Your task to perform on an android device: open the mobile data screen to see how much data has been used Image 0: 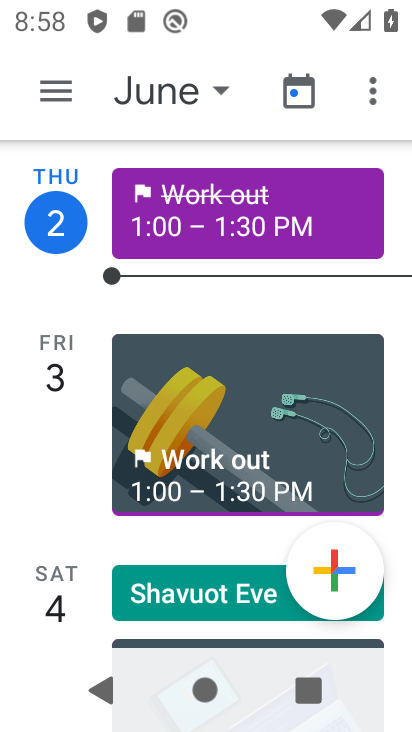
Step 0: press home button
Your task to perform on an android device: open the mobile data screen to see how much data has been used Image 1: 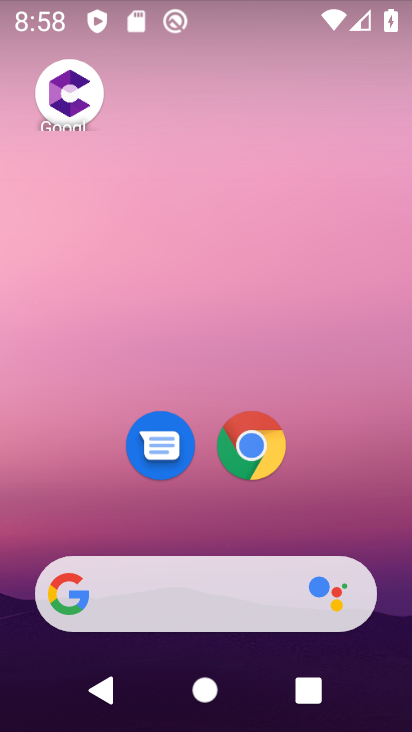
Step 1: drag from (376, 546) to (278, 254)
Your task to perform on an android device: open the mobile data screen to see how much data has been used Image 2: 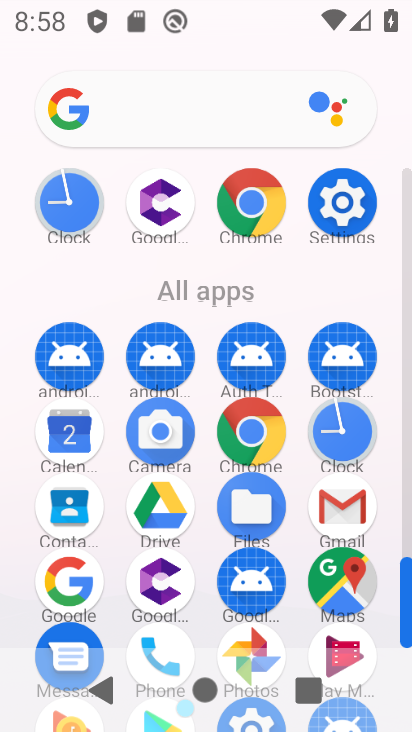
Step 2: click (349, 216)
Your task to perform on an android device: open the mobile data screen to see how much data has been used Image 3: 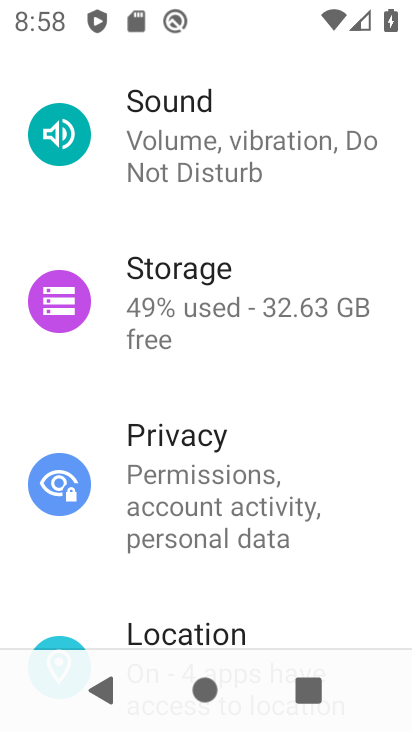
Step 3: drag from (260, 99) to (257, 432)
Your task to perform on an android device: open the mobile data screen to see how much data has been used Image 4: 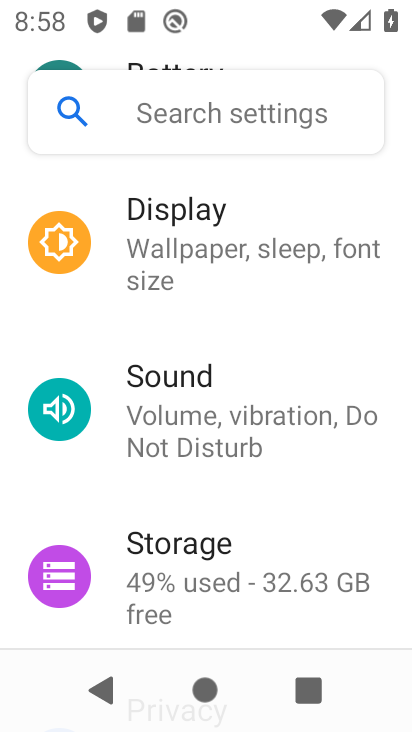
Step 4: drag from (248, 180) to (235, 591)
Your task to perform on an android device: open the mobile data screen to see how much data has been used Image 5: 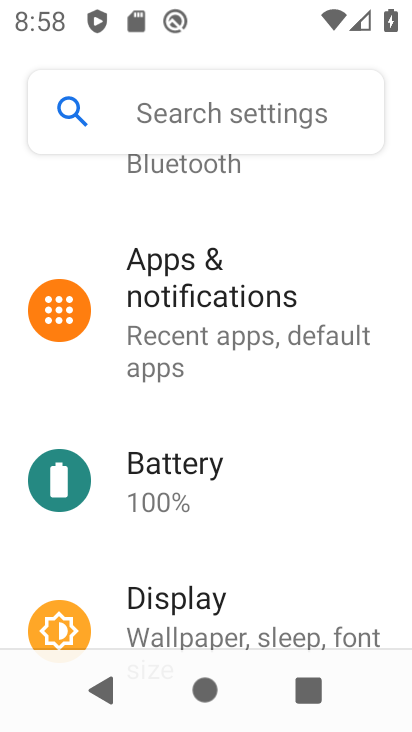
Step 5: drag from (236, 191) to (228, 514)
Your task to perform on an android device: open the mobile data screen to see how much data has been used Image 6: 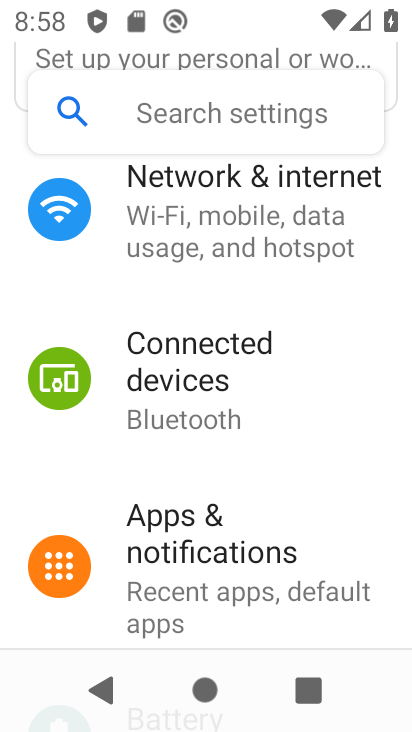
Step 6: click (250, 253)
Your task to perform on an android device: open the mobile data screen to see how much data has been used Image 7: 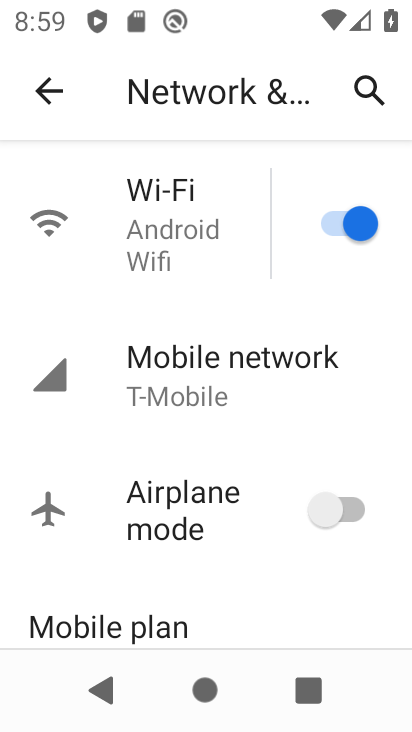
Step 7: click (268, 362)
Your task to perform on an android device: open the mobile data screen to see how much data has been used Image 8: 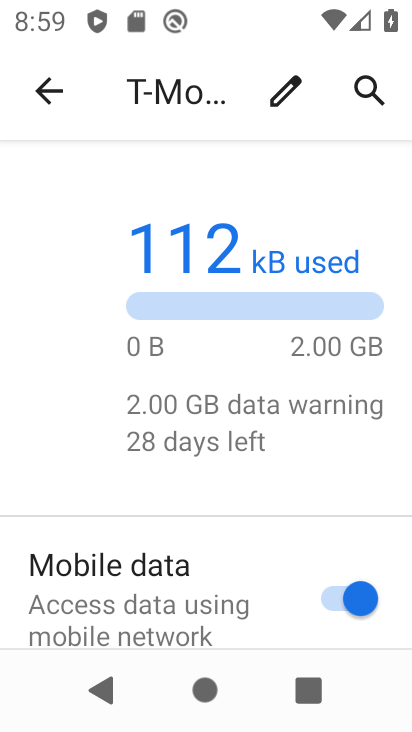
Step 8: task complete